Your task to perform on an android device: Do I have any events tomorrow? Image 0: 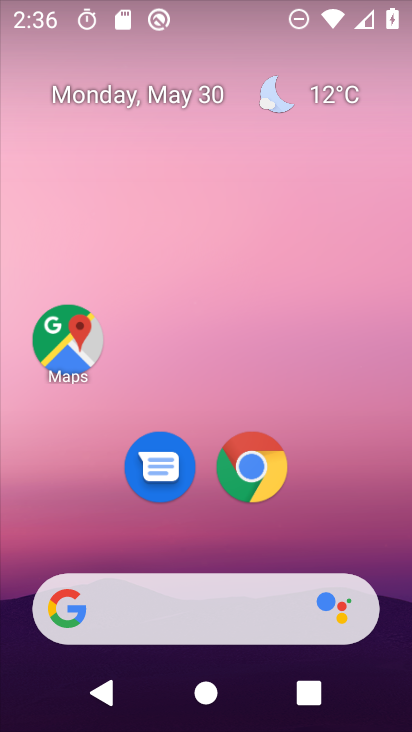
Step 0: press back button
Your task to perform on an android device: Do I have any events tomorrow? Image 1: 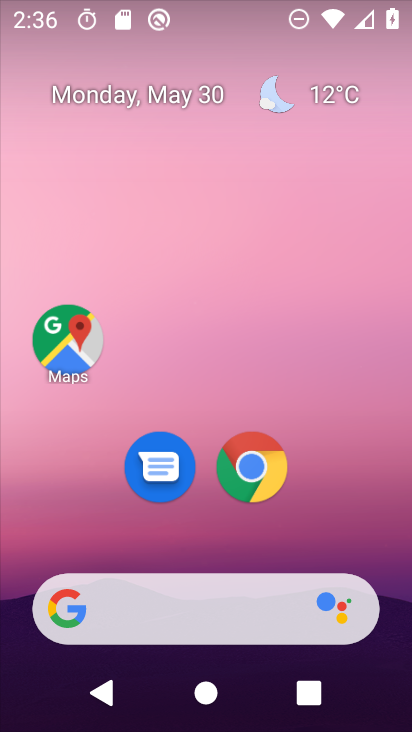
Step 1: drag from (391, 683) to (352, 202)
Your task to perform on an android device: Do I have any events tomorrow? Image 2: 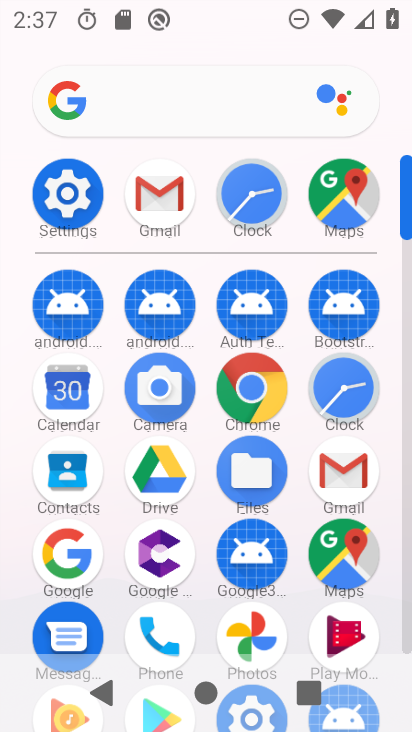
Step 2: click (58, 408)
Your task to perform on an android device: Do I have any events tomorrow? Image 3: 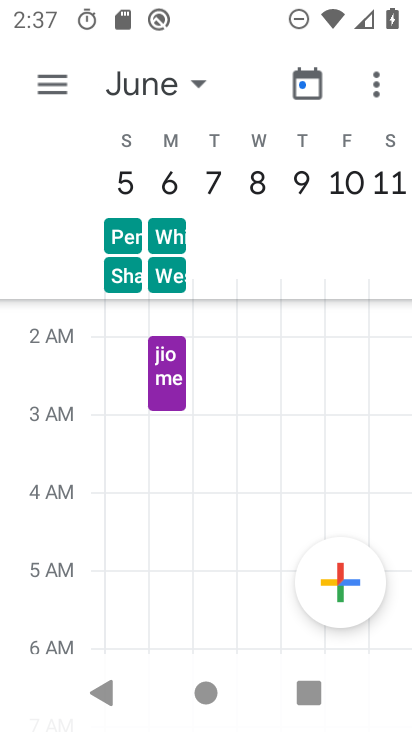
Step 3: click (193, 77)
Your task to perform on an android device: Do I have any events tomorrow? Image 4: 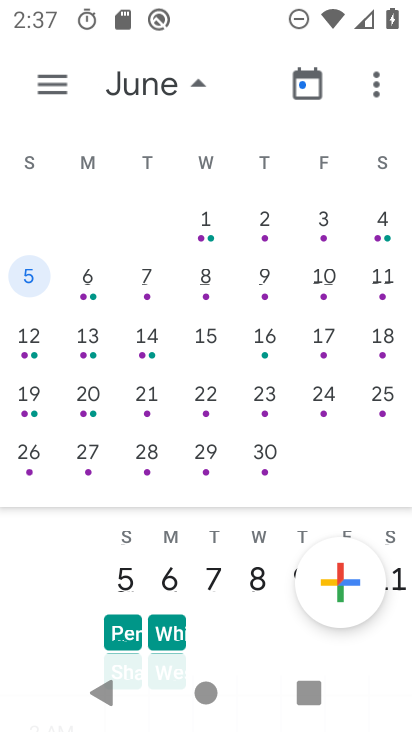
Step 4: drag from (47, 336) to (408, 295)
Your task to perform on an android device: Do I have any events tomorrow? Image 5: 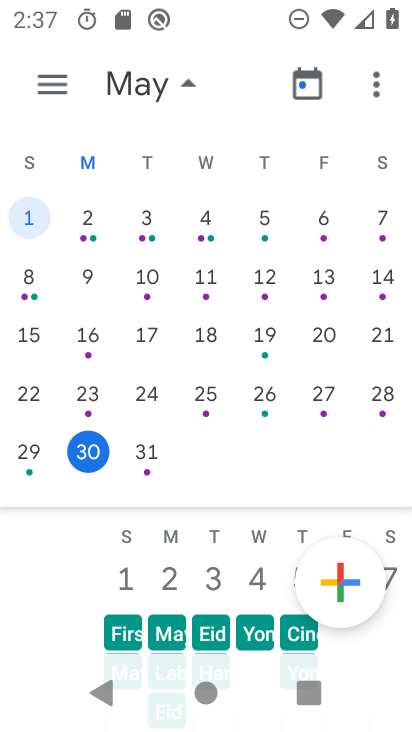
Step 5: click (143, 450)
Your task to perform on an android device: Do I have any events tomorrow? Image 6: 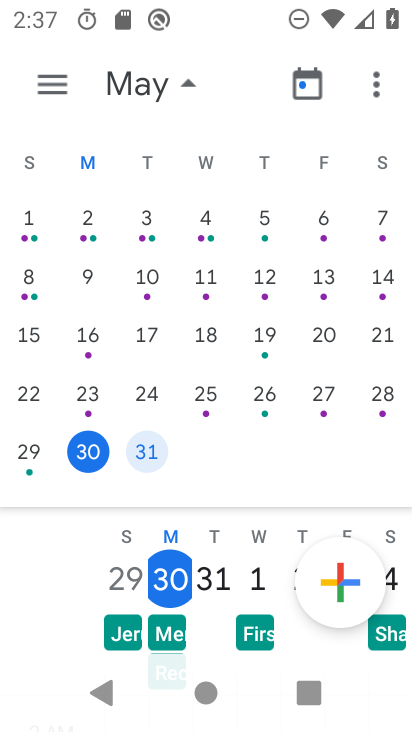
Step 6: click (53, 68)
Your task to perform on an android device: Do I have any events tomorrow? Image 7: 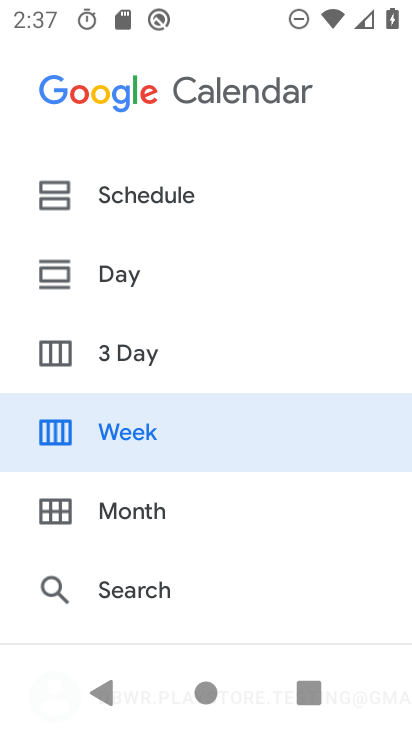
Step 7: click (145, 186)
Your task to perform on an android device: Do I have any events tomorrow? Image 8: 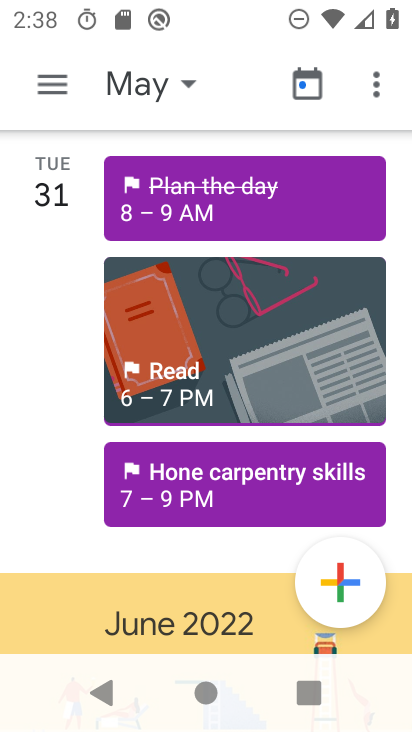
Step 8: task complete